Your task to perform on an android device: toggle wifi Image 0: 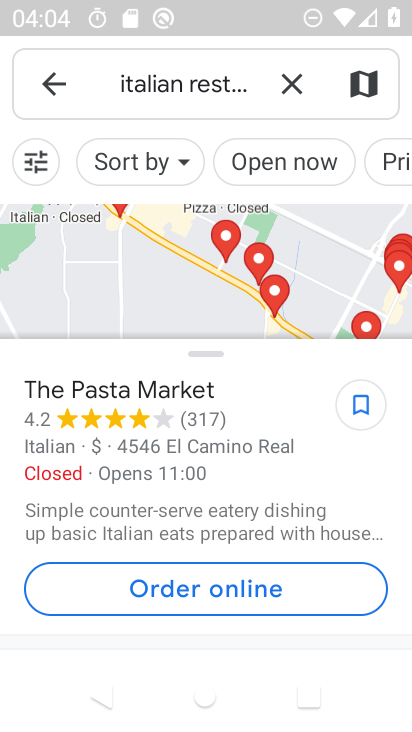
Step 0: press back button
Your task to perform on an android device: toggle wifi Image 1: 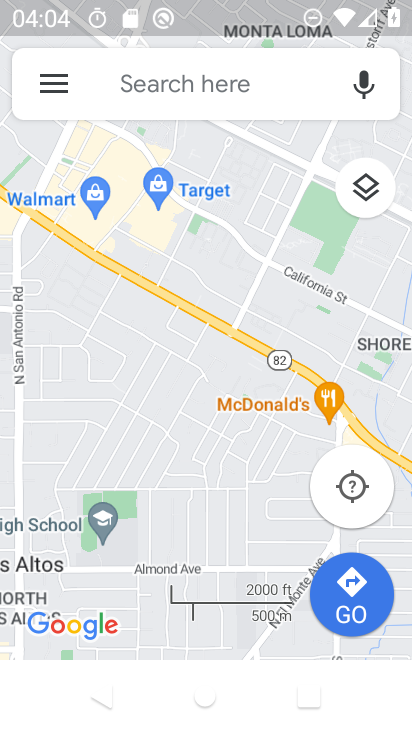
Step 1: press back button
Your task to perform on an android device: toggle wifi Image 2: 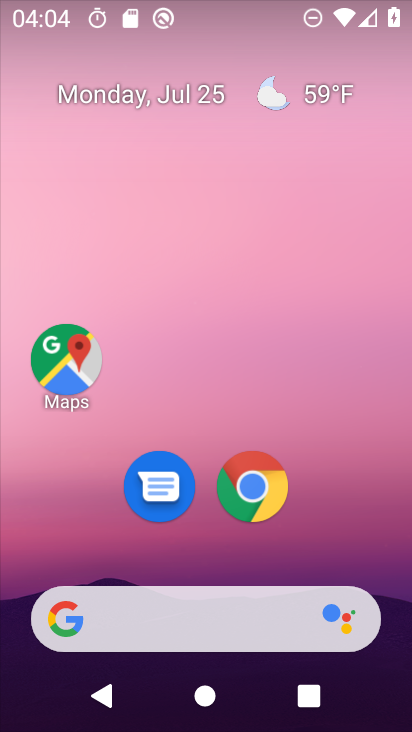
Step 2: drag from (90, 51) to (188, 528)
Your task to perform on an android device: toggle wifi Image 3: 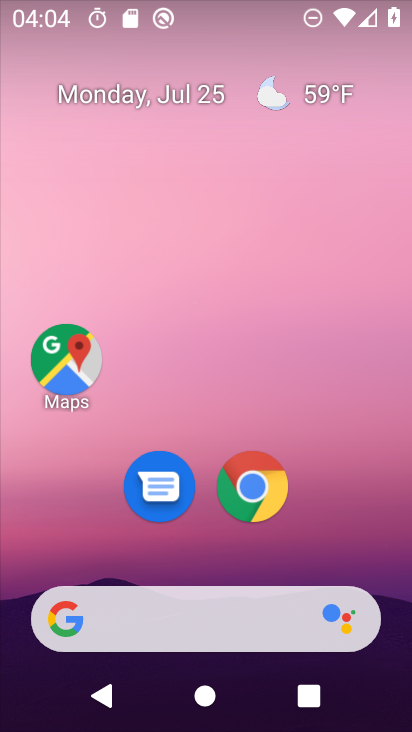
Step 3: drag from (66, 16) to (129, 467)
Your task to perform on an android device: toggle wifi Image 4: 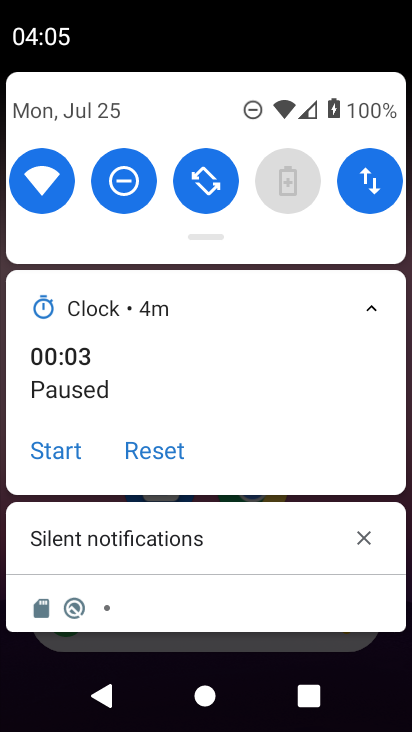
Step 4: click (33, 185)
Your task to perform on an android device: toggle wifi Image 5: 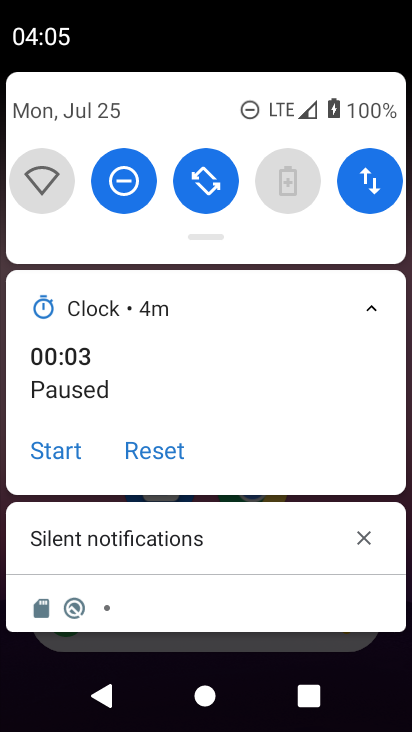
Step 5: task complete